Your task to perform on an android device: Open Google Chrome Image 0: 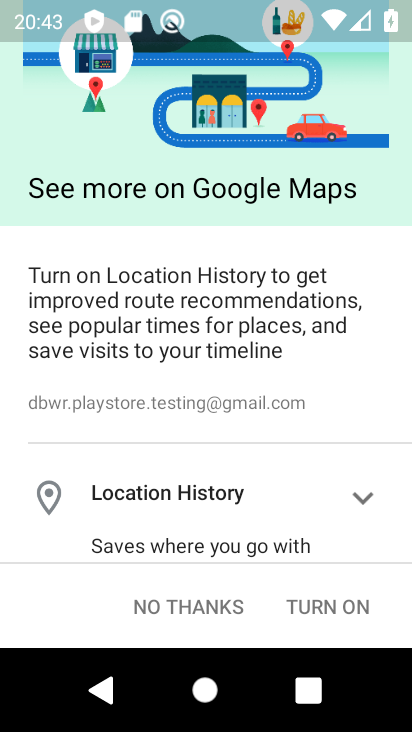
Step 0: press home button
Your task to perform on an android device: Open Google Chrome Image 1: 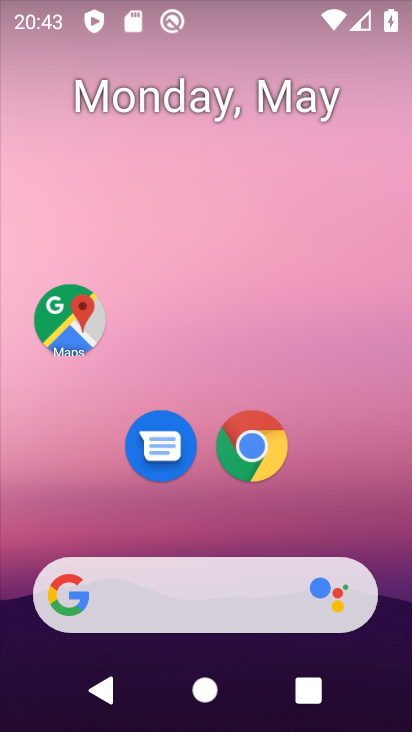
Step 1: click (252, 448)
Your task to perform on an android device: Open Google Chrome Image 2: 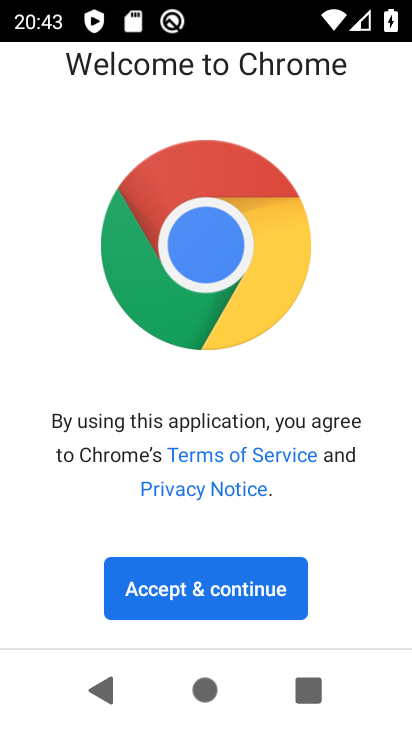
Step 2: click (182, 589)
Your task to perform on an android device: Open Google Chrome Image 3: 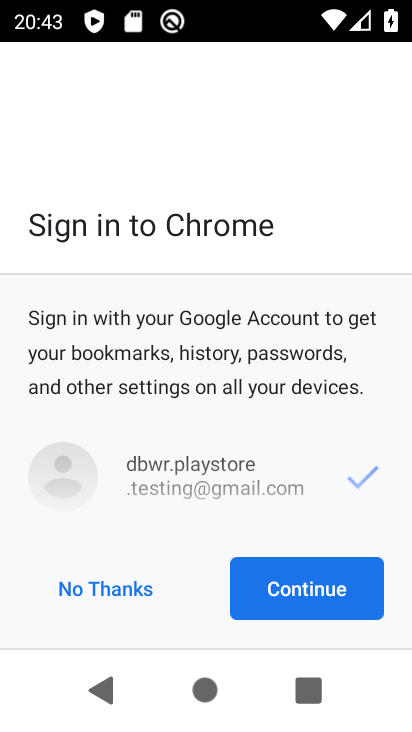
Step 3: click (344, 599)
Your task to perform on an android device: Open Google Chrome Image 4: 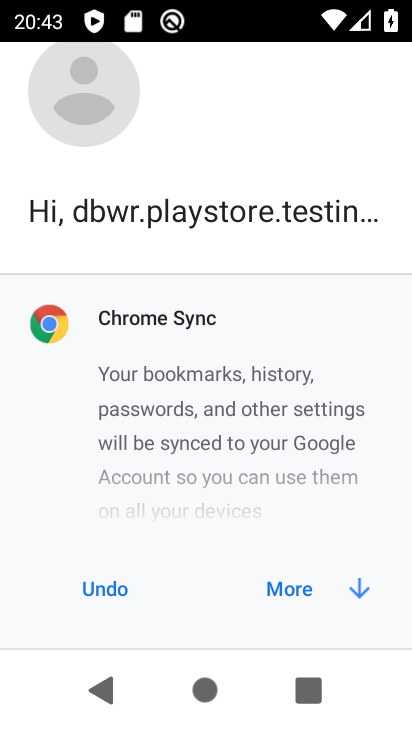
Step 4: click (292, 589)
Your task to perform on an android device: Open Google Chrome Image 5: 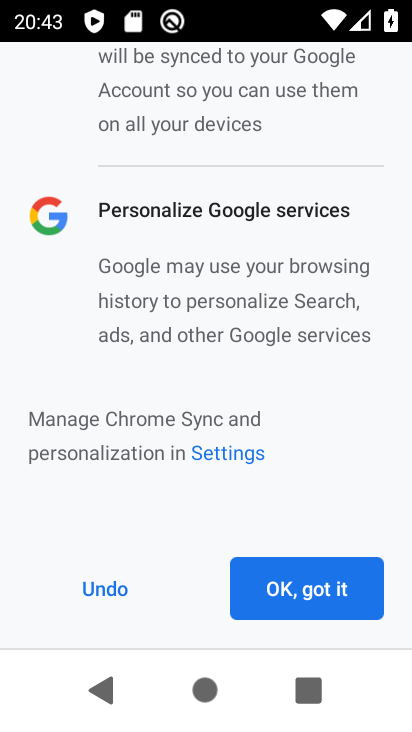
Step 5: click (307, 596)
Your task to perform on an android device: Open Google Chrome Image 6: 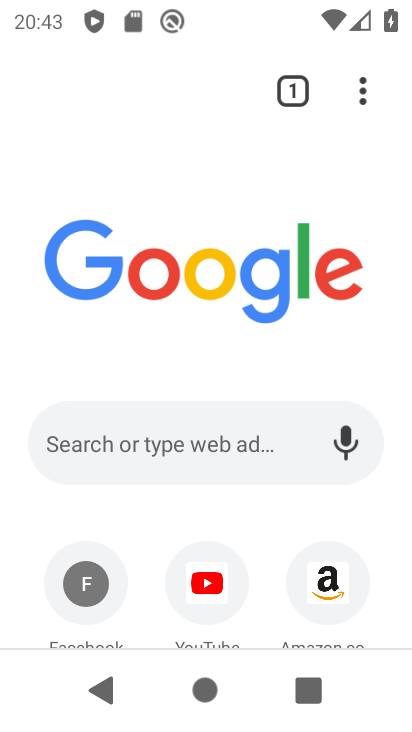
Step 6: task complete